Your task to perform on an android device: Go to Android settings Image 0: 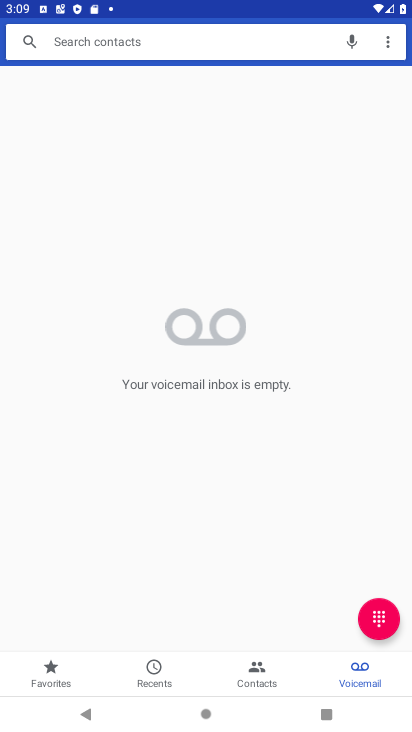
Step 0: press home button
Your task to perform on an android device: Go to Android settings Image 1: 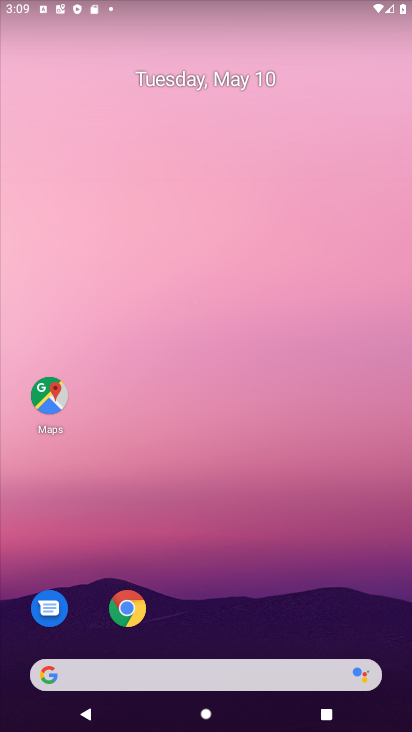
Step 1: drag from (387, 646) to (292, 150)
Your task to perform on an android device: Go to Android settings Image 2: 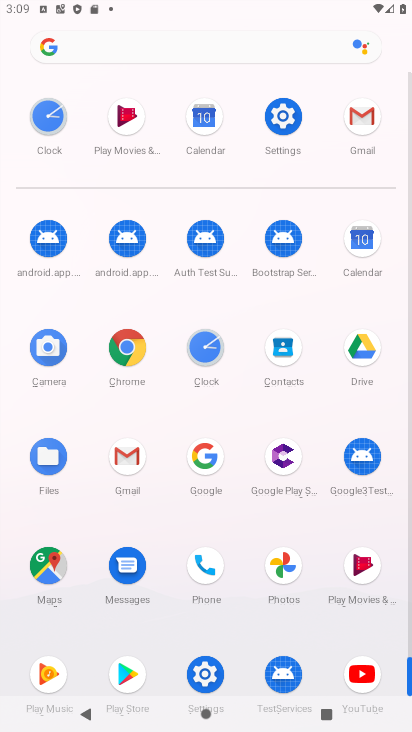
Step 2: click (206, 672)
Your task to perform on an android device: Go to Android settings Image 3: 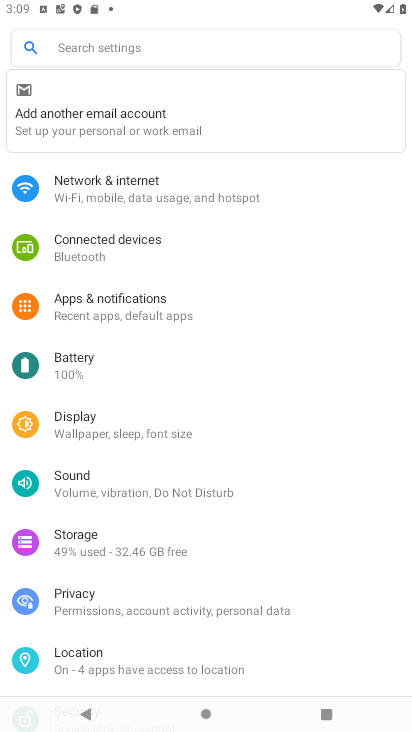
Step 3: drag from (329, 619) to (299, 275)
Your task to perform on an android device: Go to Android settings Image 4: 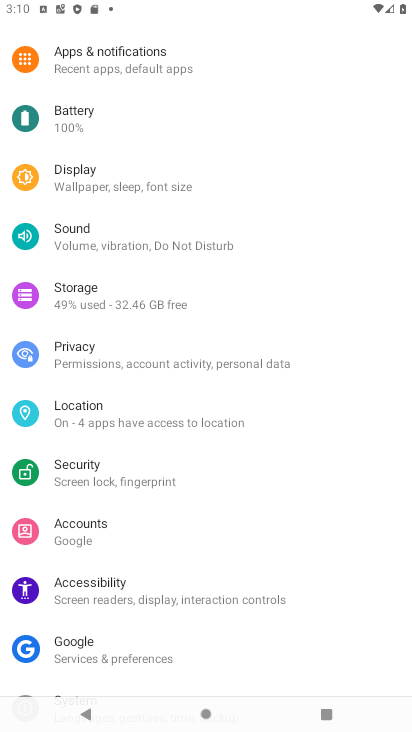
Step 4: drag from (310, 628) to (267, 279)
Your task to perform on an android device: Go to Android settings Image 5: 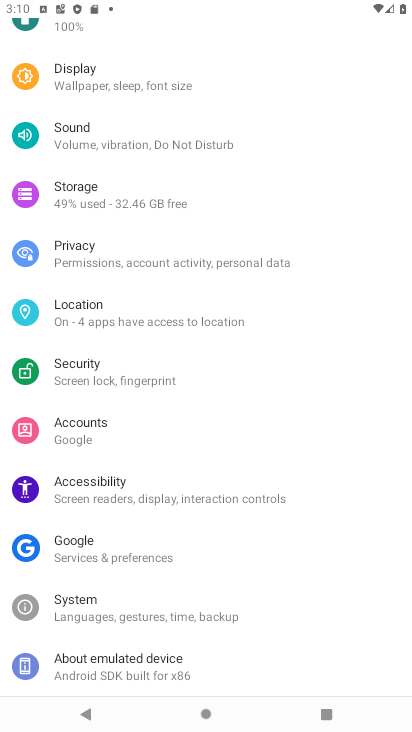
Step 5: drag from (227, 648) to (252, 297)
Your task to perform on an android device: Go to Android settings Image 6: 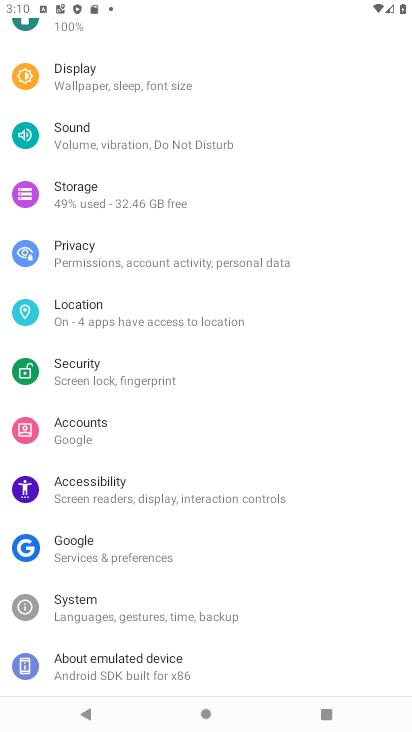
Step 6: click (113, 672)
Your task to perform on an android device: Go to Android settings Image 7: 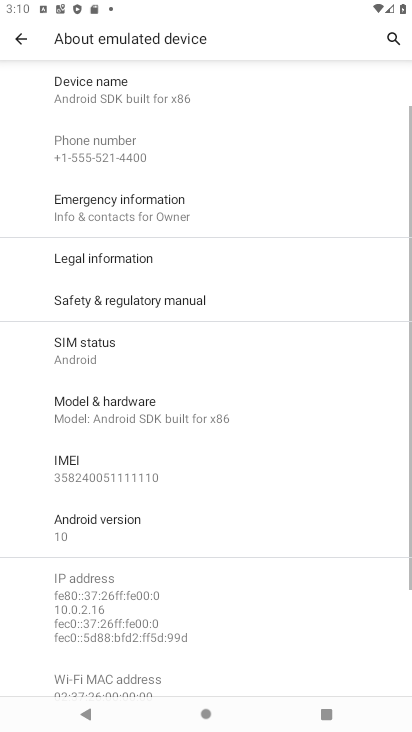
Step 7: task complete